Your task to perform on an android device: star an email in the gmail app Image 0: 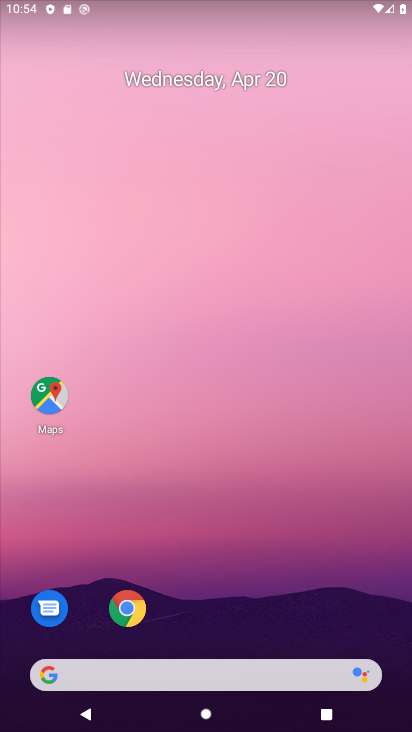
Step 0: drag from (283, 606) to (299, 136)
Your task to perform on an android device: star an email in the gmail app Image 1: 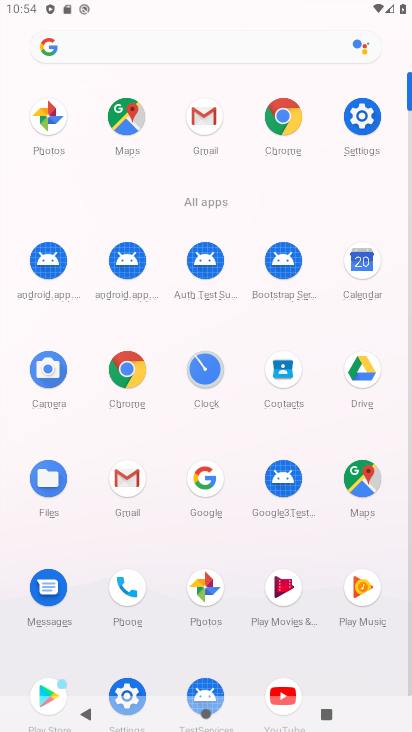
Step 1: click (197, 129)
Your task to perform on an android device: star an email in the gmail app Image 2: 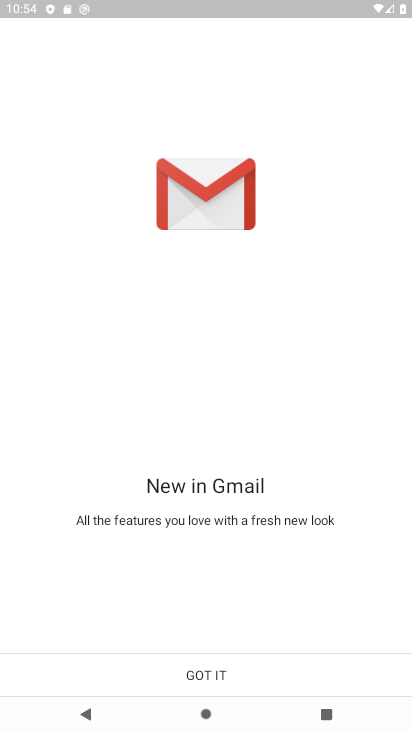
Step 2: click (229, 671)
Your task to perform on an android device: star an email in the gmail app Image 3: 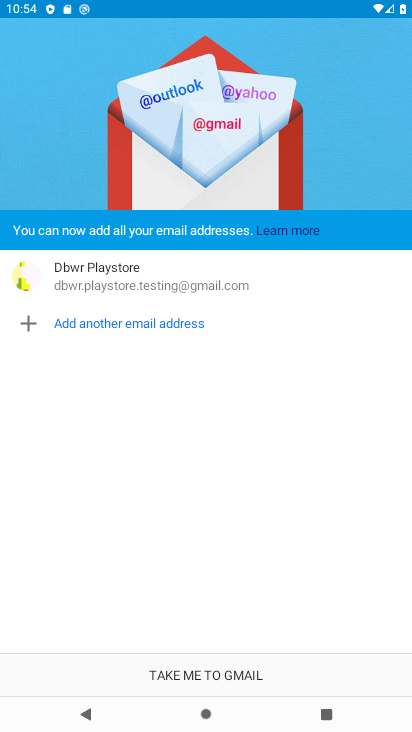
Step 3: click (230, 670)
Your task to perform on an android device: star an email in the gmail app Image 4: 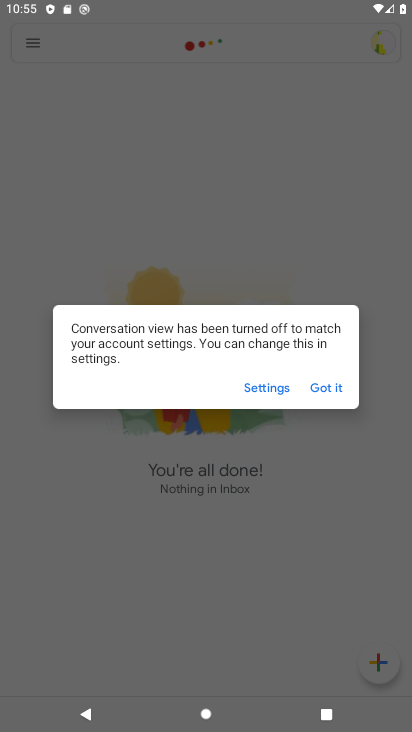
Step 4: click (324, 395)
Your task to perform on an android device: star an email in the gmail app Image 5: 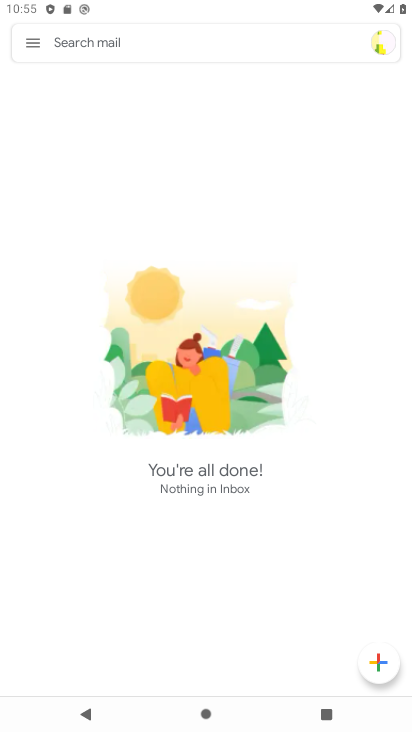
Step 5: click (30, 46)
Your task to perform on an android device: star an email in the gmail app Image 6: 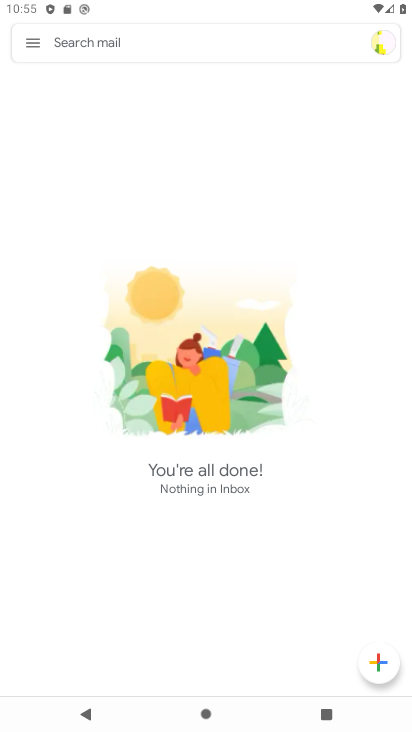
Step 6: task complete